Your task to perform on an android device: Play the last video I watched on Youtube Image 0: 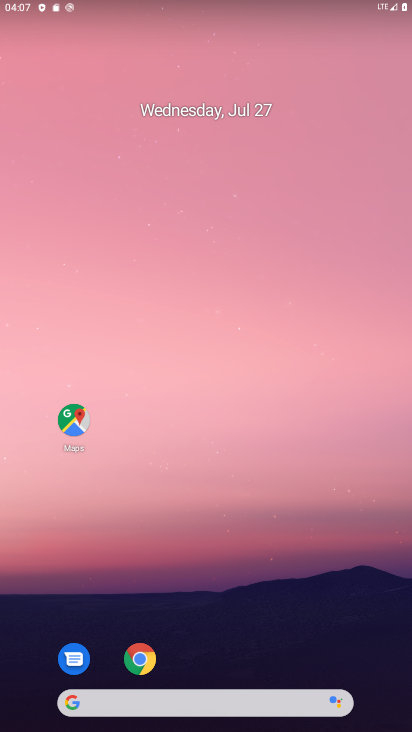
Step 0: drag from (228, 667) to (259, 43)
Your task to perform on an android device: Play the last video I watched on Youtube Image 1: 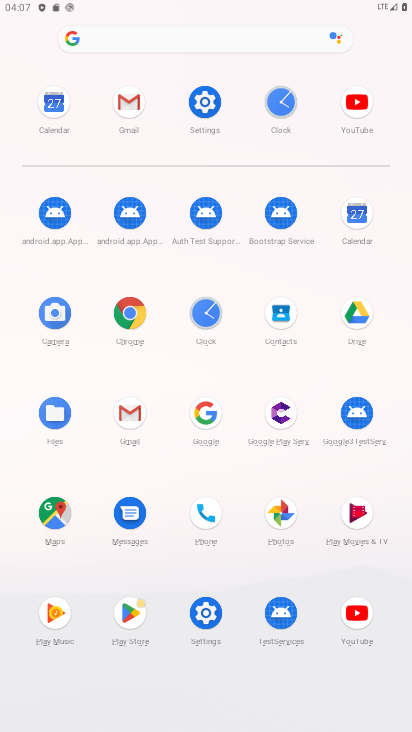
Step 1: click (347, 615)
Your task to perform on an android device: Play the last video I watched on Youtube Image 2: 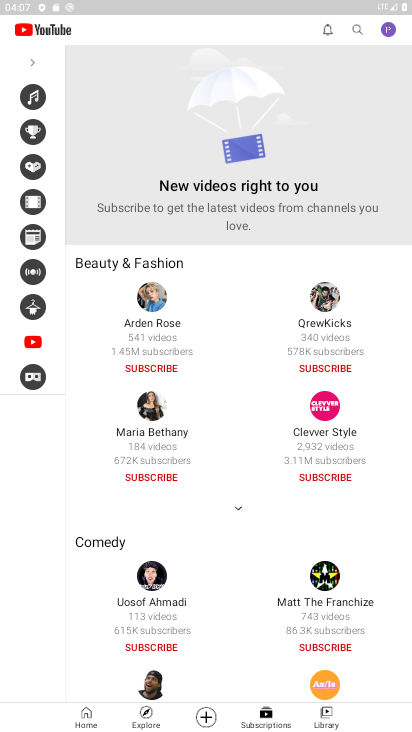
Step 2: click (329, 725)
Your task to perform on an android device: Play the last video I watched on Youtube Image 3: 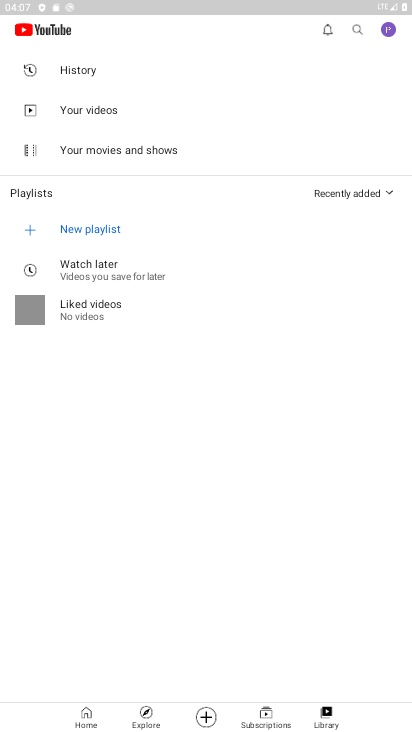
Step 3: click (73, 76)
Your task to perform on an android device: Play the last video I watched on Youtube Image 4: 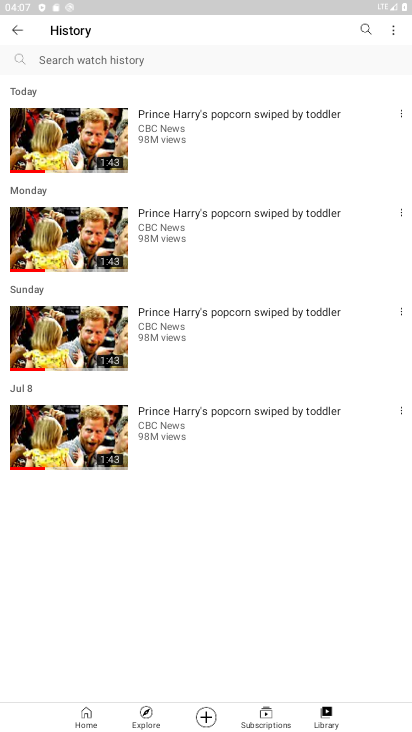
Step 4: click (78, 134)
Your task to perform on an android device: Play the last video I watched on Youtube Image 5: 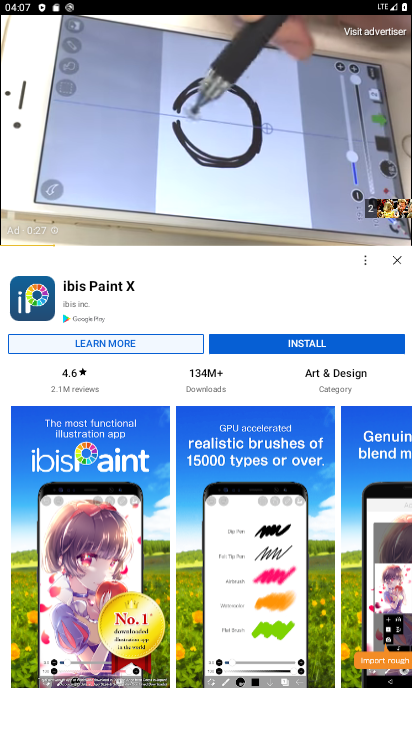
Step 5: click (190, 143)
Your task to perform on an android device: Play the last video I watched on Youtube Image 6: 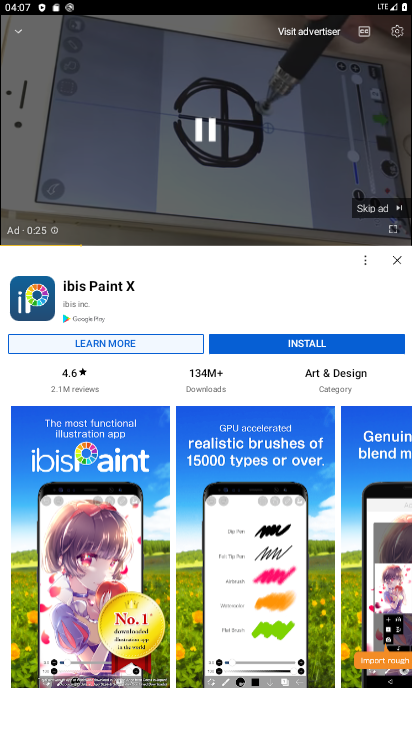
Step 6: click (200, 128)
Your task to perform on an android device: Play the last video I watched on Youtube Image 7: 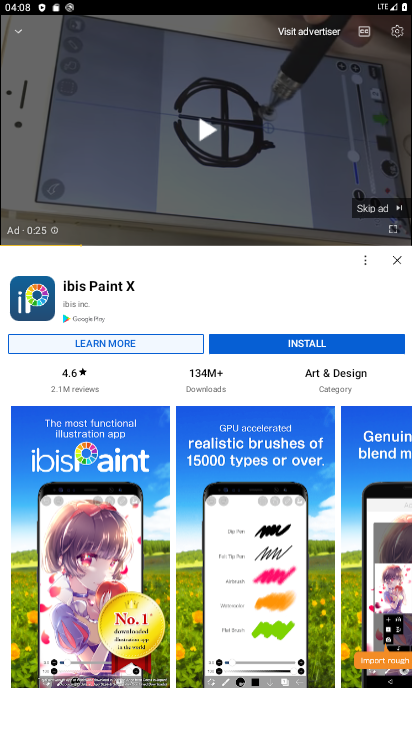
Step 7: task complete